Your task to perform on an android device: Go to eBay Image 0: 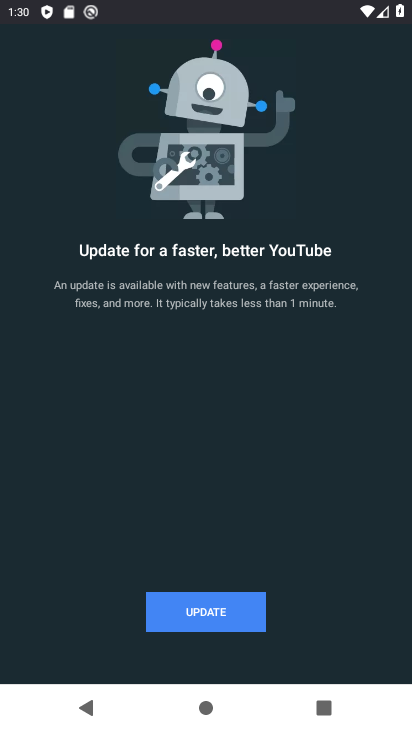
Step 0: press home button
Your task to perform on an android device: Go to eBay Image 1: 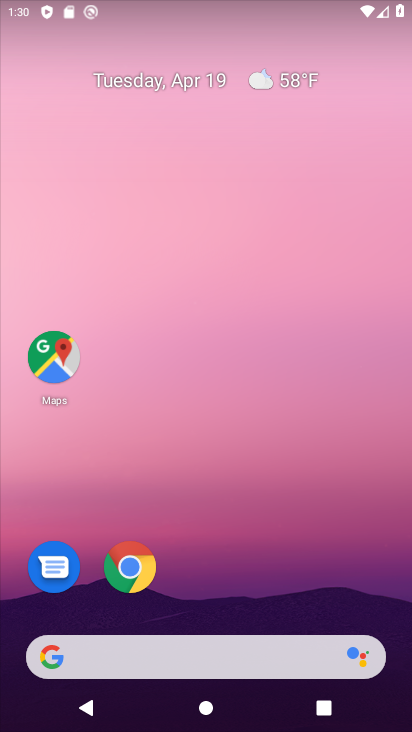
Step 1: drag from (211, 580) to (213, 209)
Your task to perform on an android device: Go to eBay Image 2: 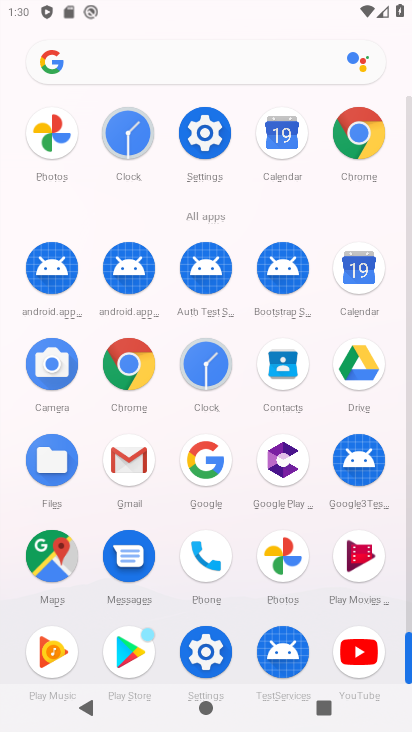
Step 2: click (156, 53)
Your task to perform on an android device: Go to eBay Image 3: 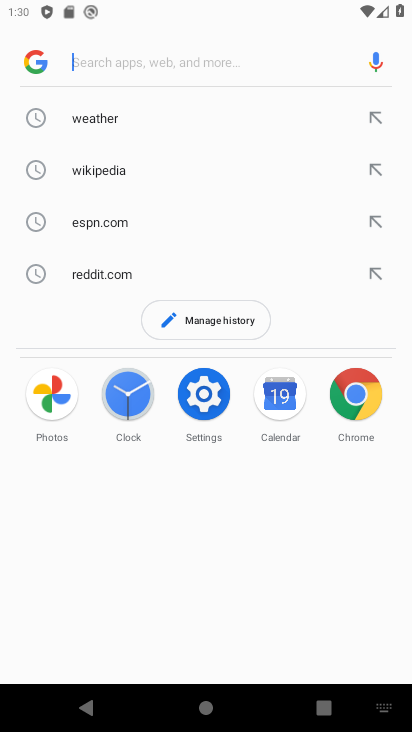
Step 3: type "ebay"
Your task to perform on an android device: Go to eBay Image 4: 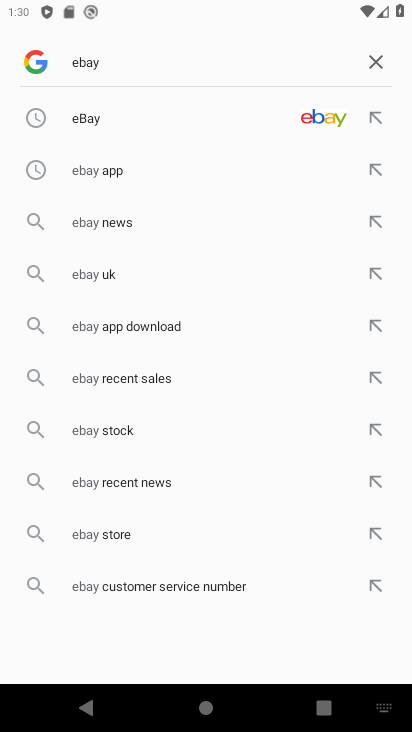
Step 4: click (107, 123)
Your task to perform on an android device: Go to eBay Image 5: 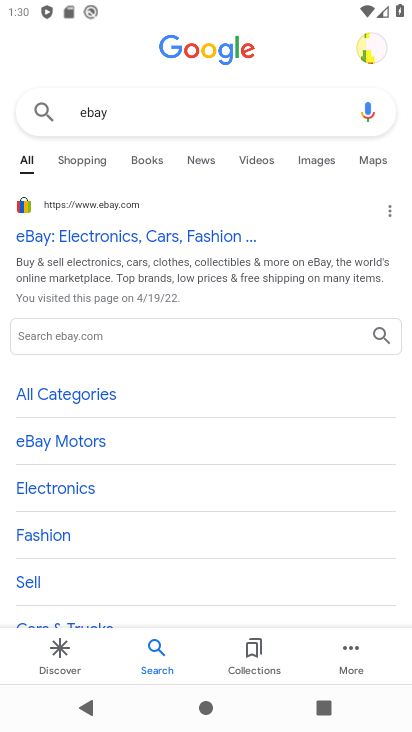
Step 5: click (81, 233)
Your task to perform on an android device: Go to eBay Image 6: 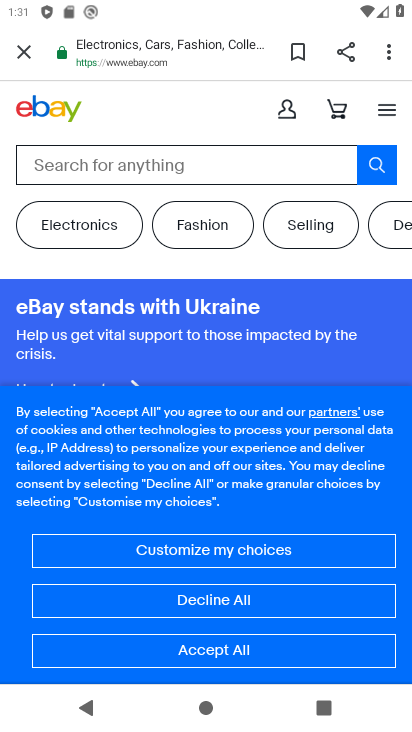
Step 6: task complete